Your task to perform on an android device: Show me the alarms in the clock app Image 0: 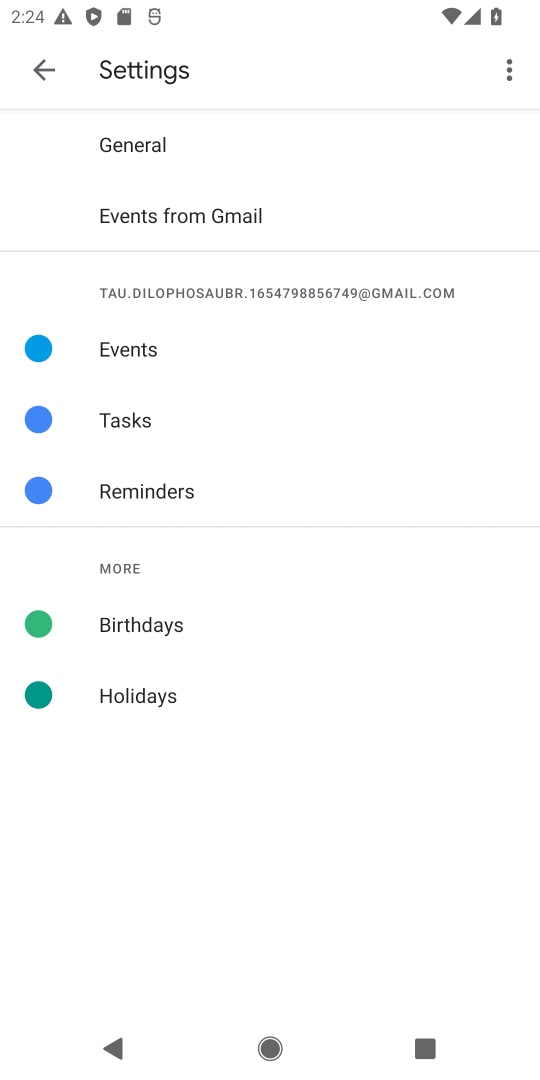
Step 0: press home button
Your task to perform on an android device: Show me the alarms in the clock app Image 1: 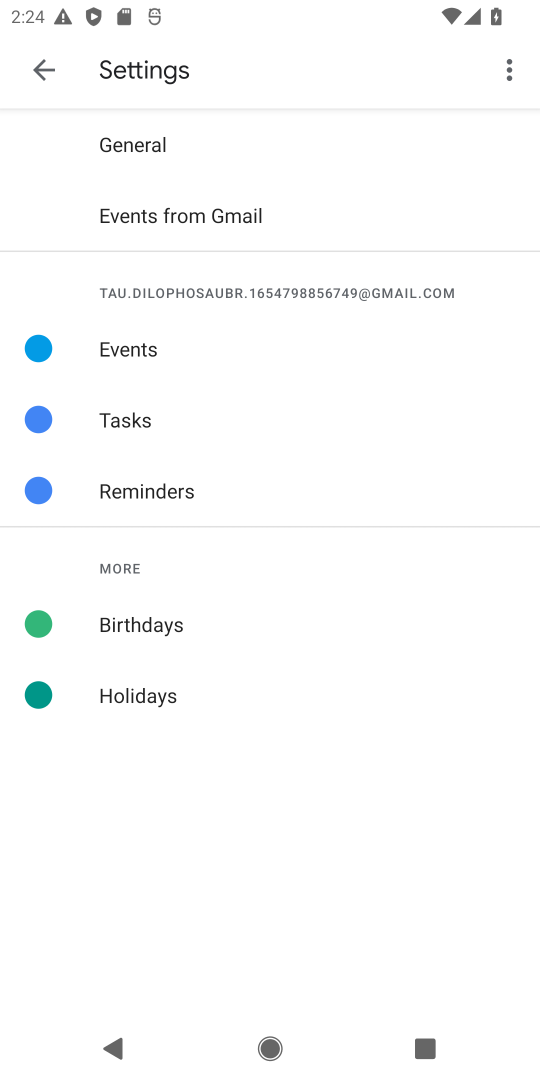
Step 1: press home button
Your task to perform on an android device: Show me the alarms in the clock app Image 2: 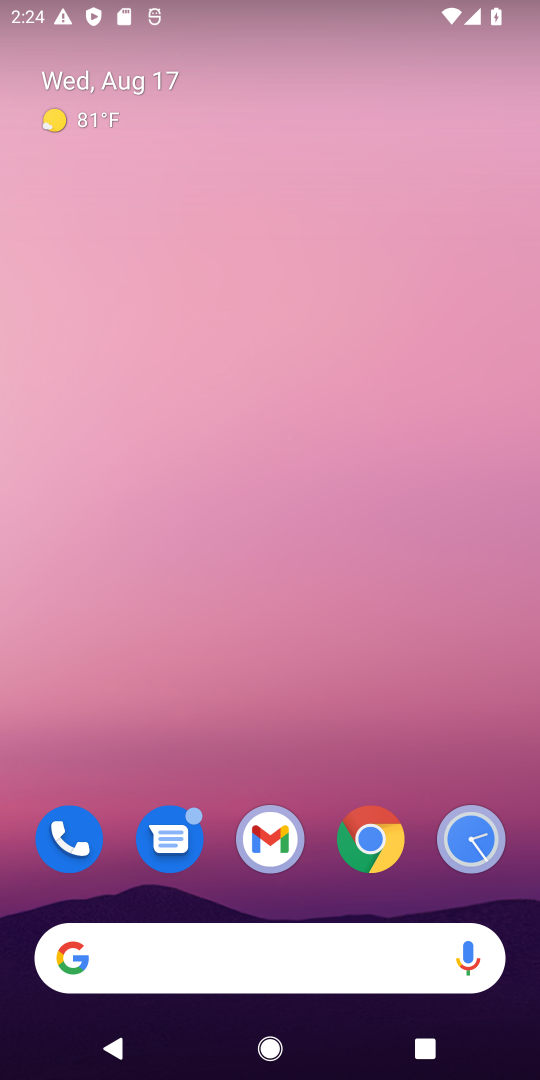
Step 2: drag from (315, 877) to (288, 95)
Your task to perform on an android device: Show me the alarms in the clock app Image 3: 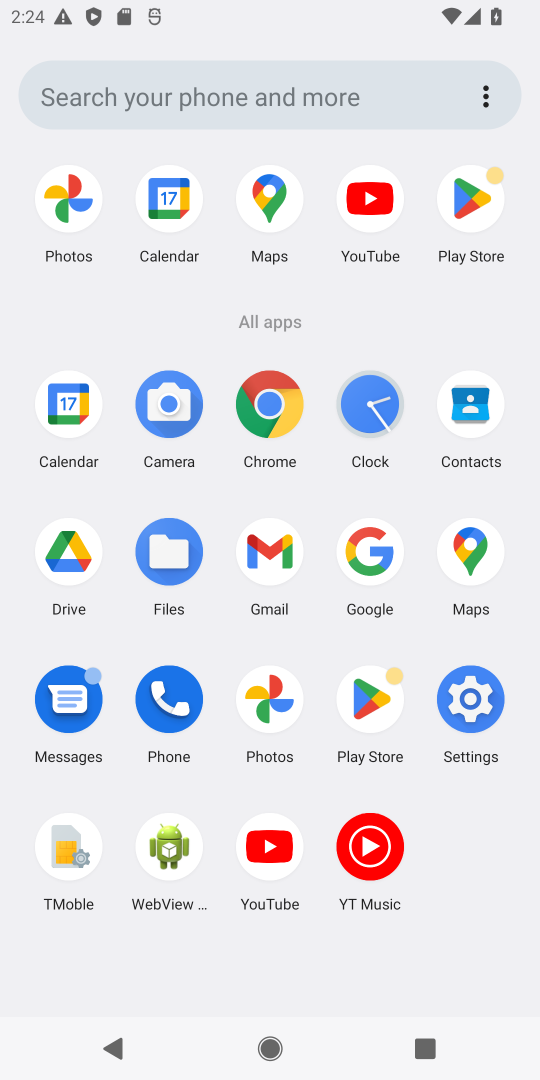
Step 3: click (373, 395)
Your task to perform on an android device: Show me the alarms in the clock app Image 4: 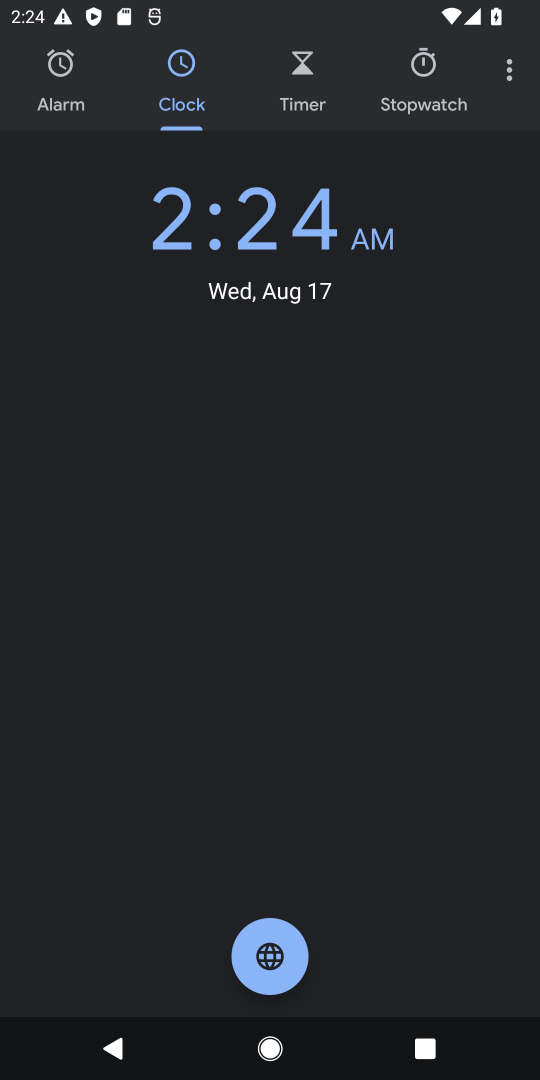
Step 4: click (48, 81)
Your task to perform on an android device: Show me the alarms in the clock app Image 5: 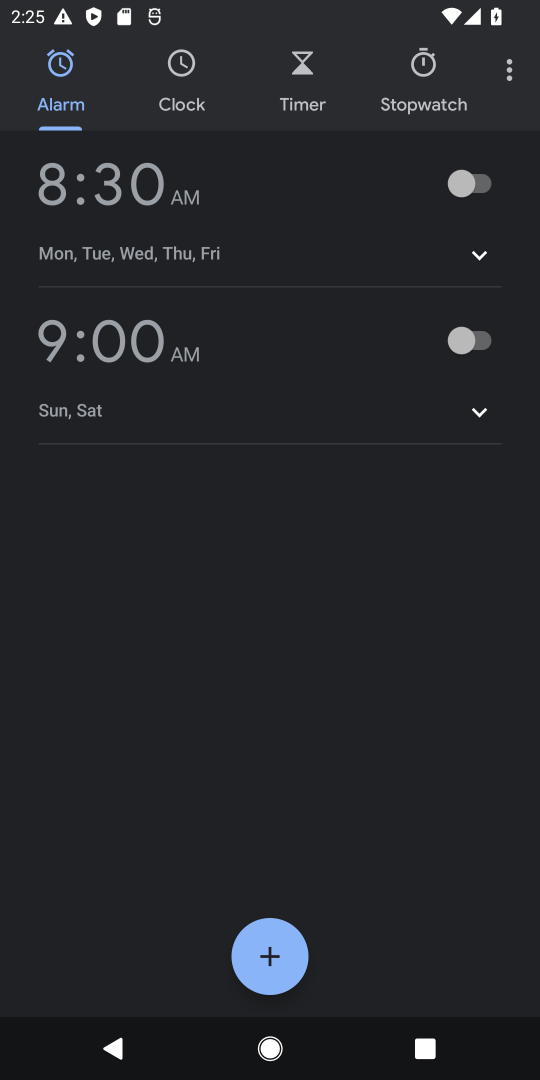
Step 5: task complete